Your task to perform on an android device: Open Chrome and go to settings Image 0: 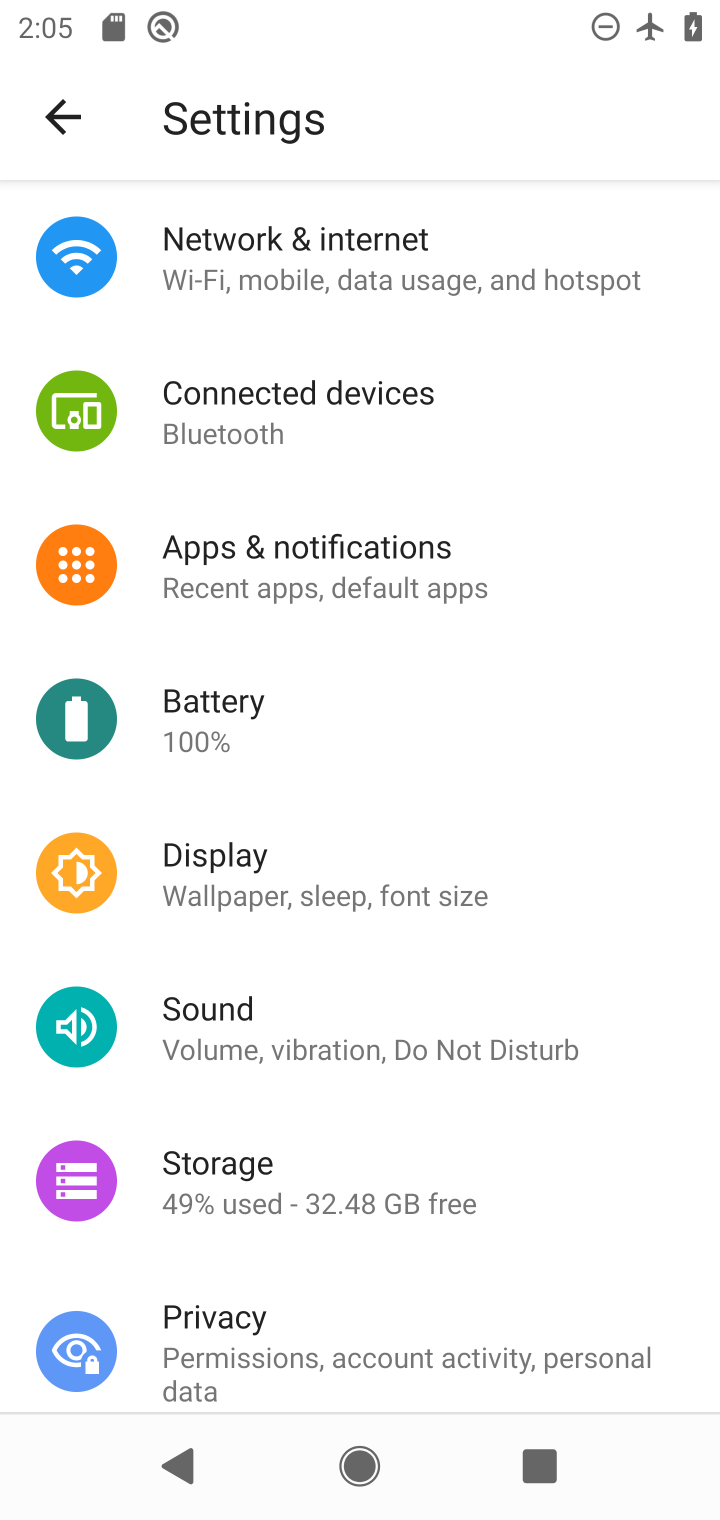
Step 0: press home button
Your task to perform on an android device: Open Chrome and go to settings Image 1: 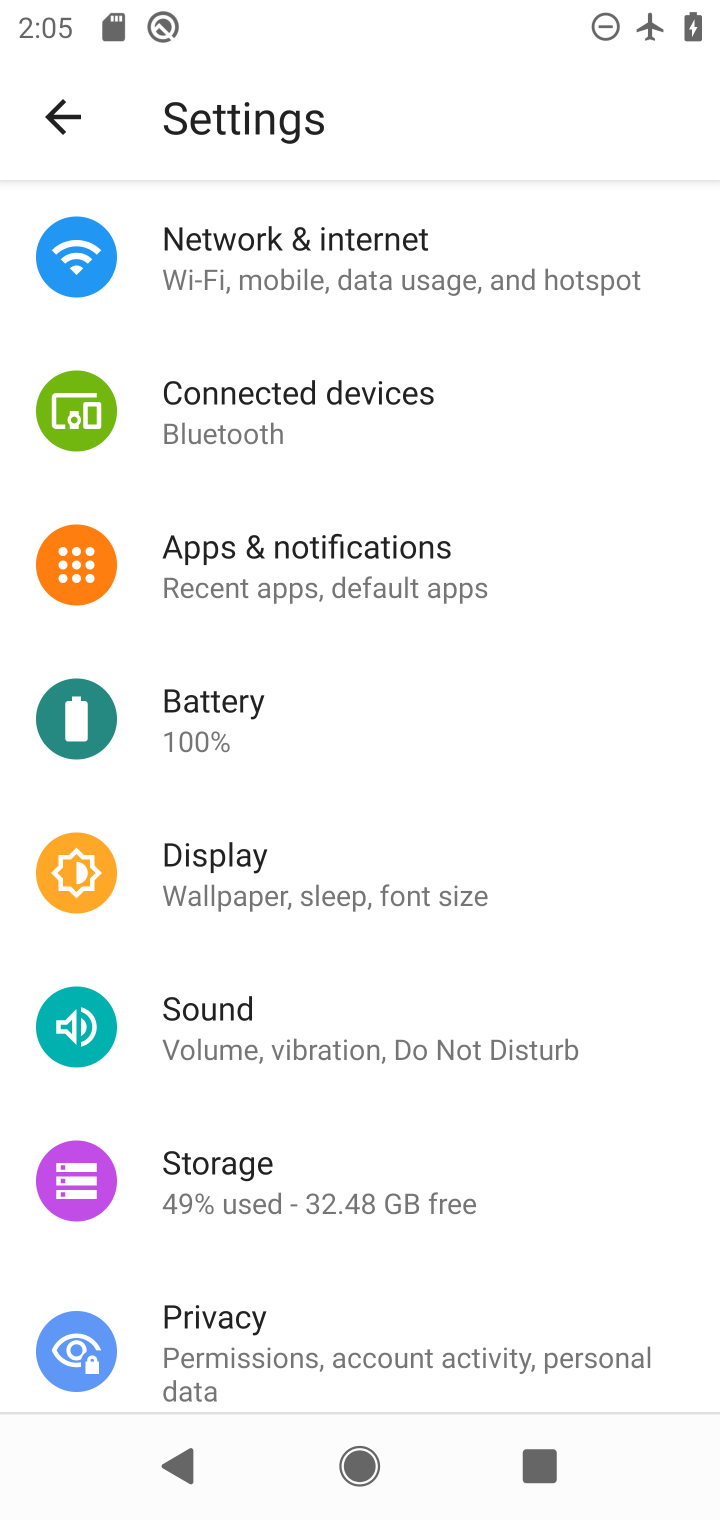
Step 1: press home button
Your task to perform on an android device: Open Chrome and go to settings Image 2: 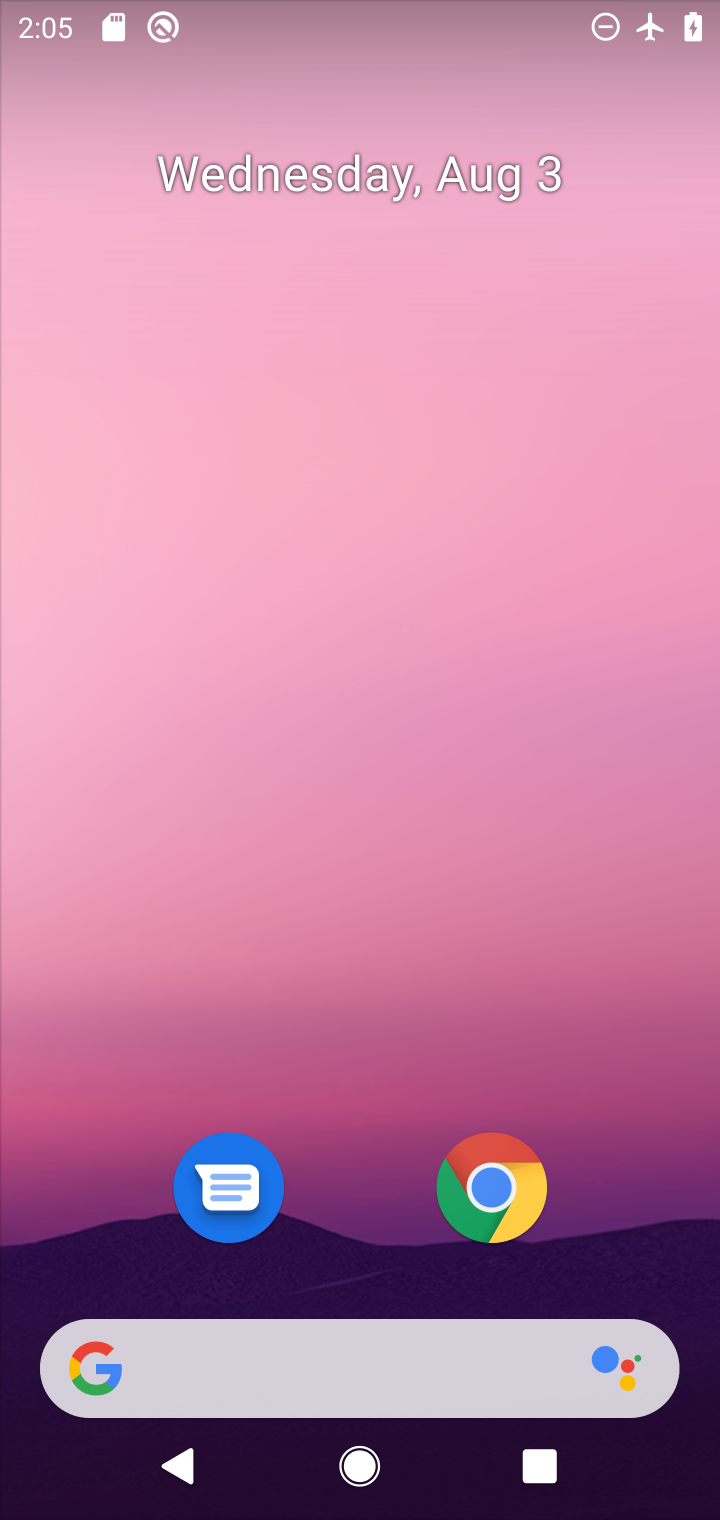
Step 2: click (487, 1199)
Your task to perform on an android device: Open Chrome and go to settings Image 3: 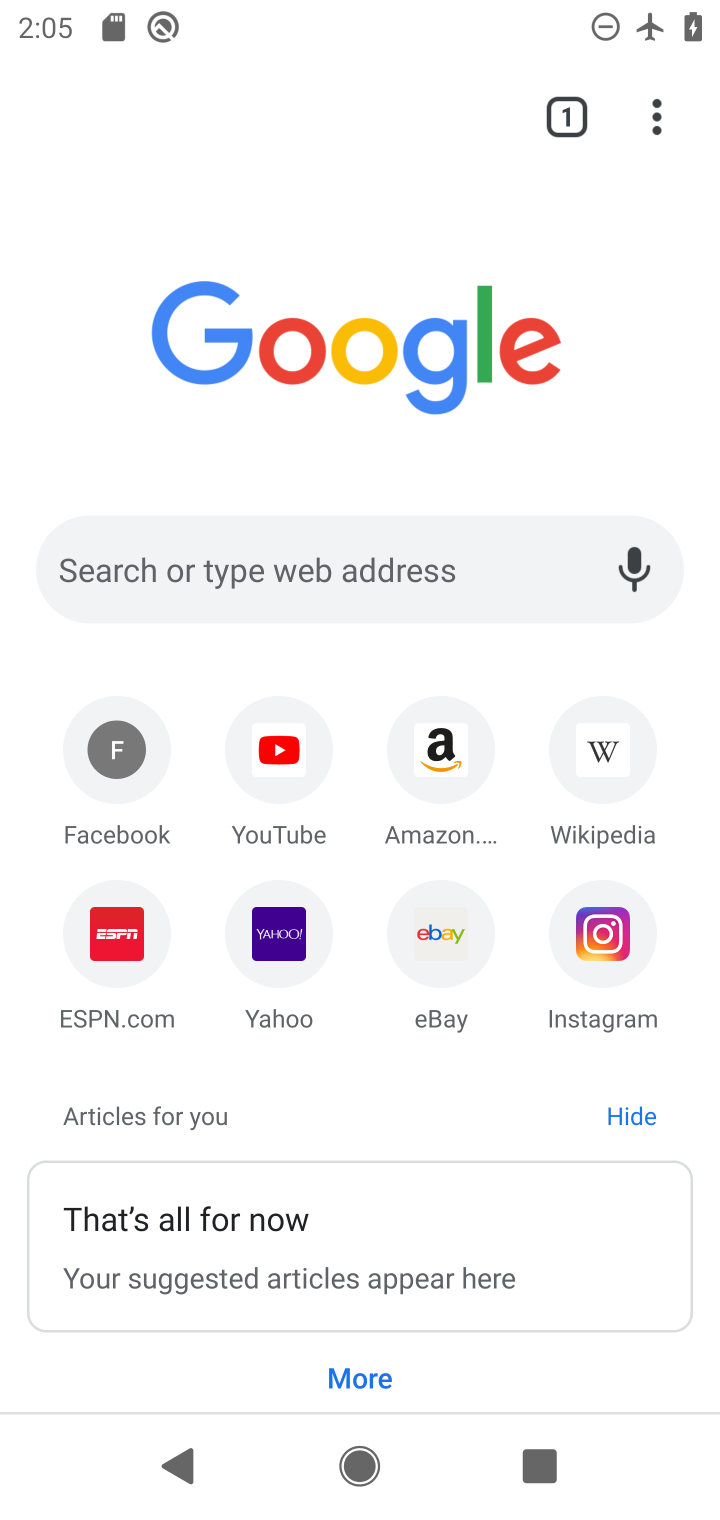
Step 3: click (654, 122)
Your task to perform on an android device: Open Chrome and go to settings Image 4: 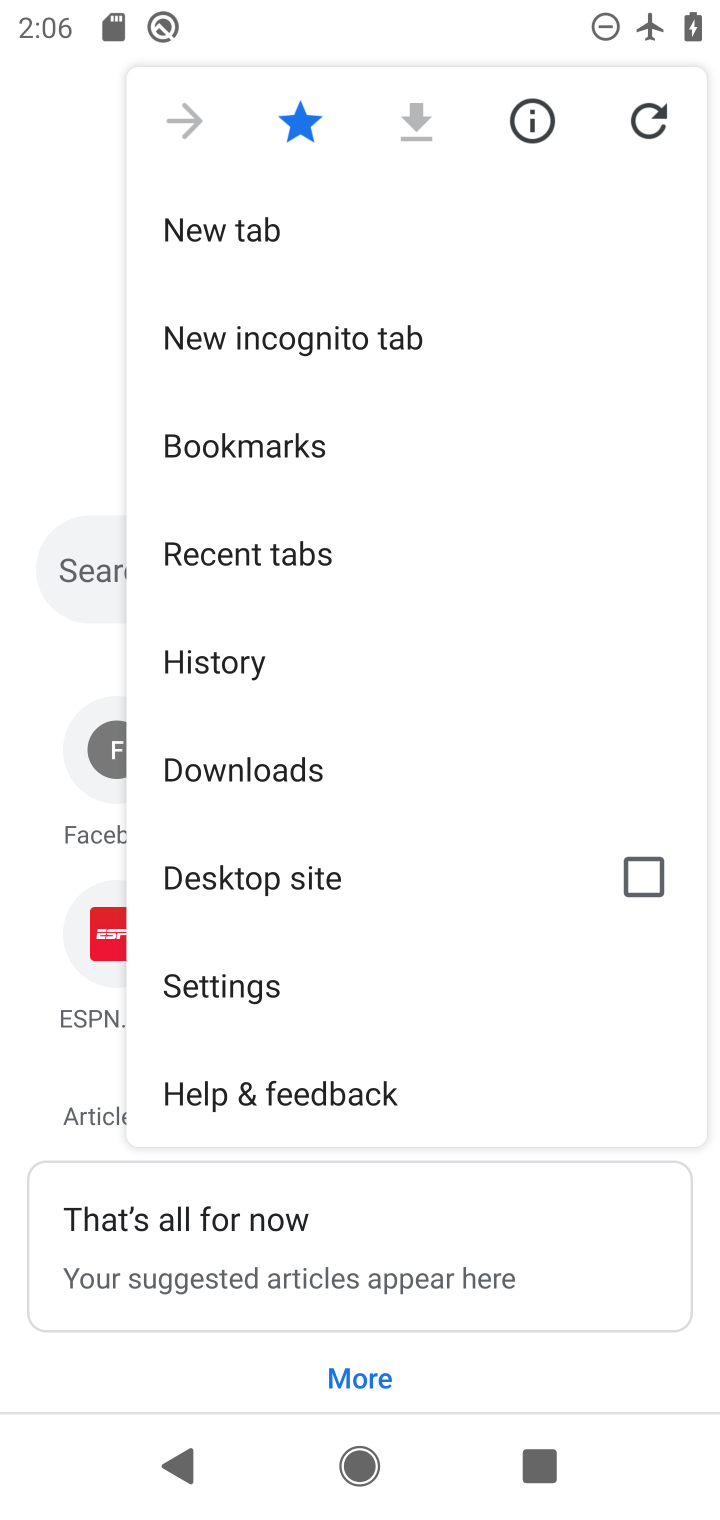
Step 4: click (251, 981)
Your task to perform on an android device: Open Chrome and go to settings Image 5: 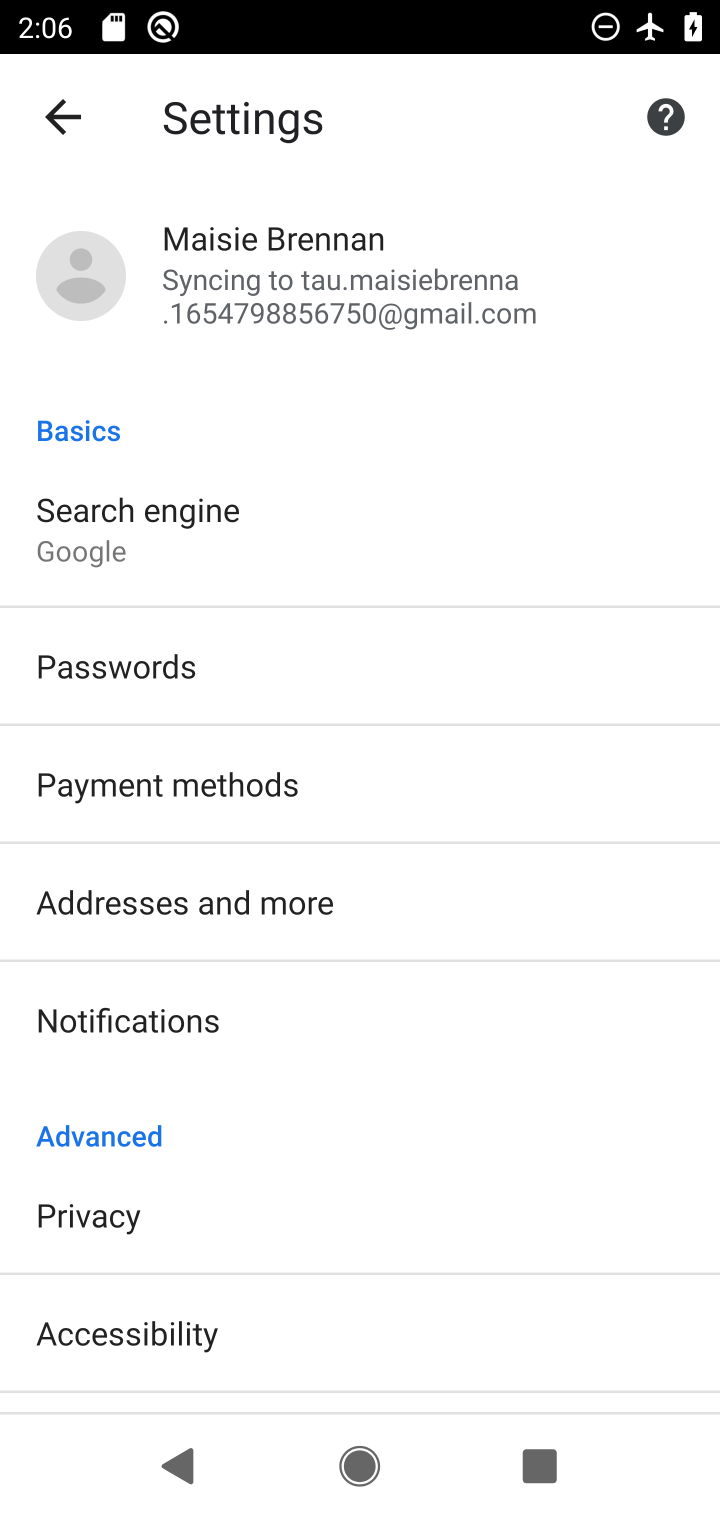
Step 5: task complete